Your task to perform on an android device: create a new album in the google photos Image 0: 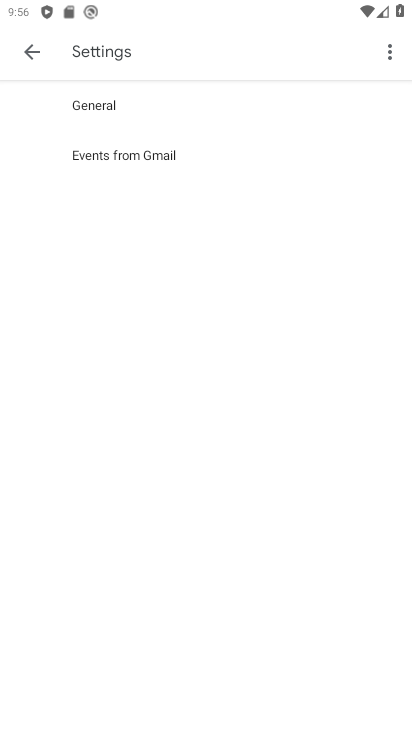
Step 0: press home button
Your task to perform on an android device: create a new album in the google photos Image 1: 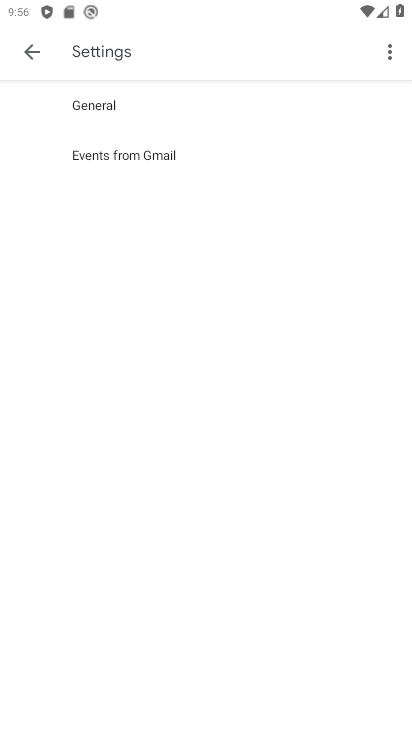
Step 1: press home button
Your task to perform on an android device: create a new album in the google photos Image 2: 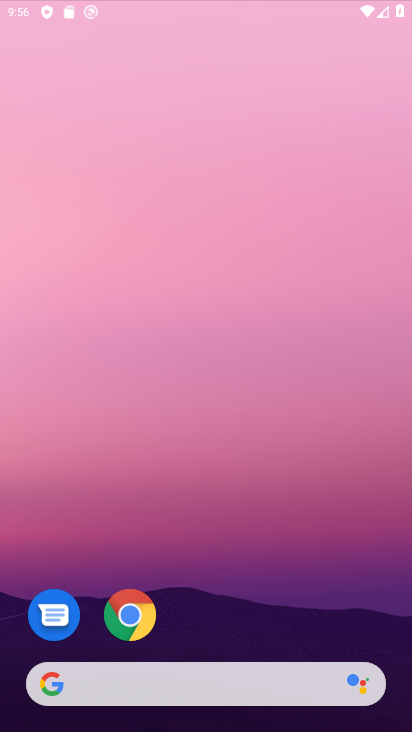
Step 2: click (339, 520)
Your task to perform on an android device: create a new album in the google photos Image 3: 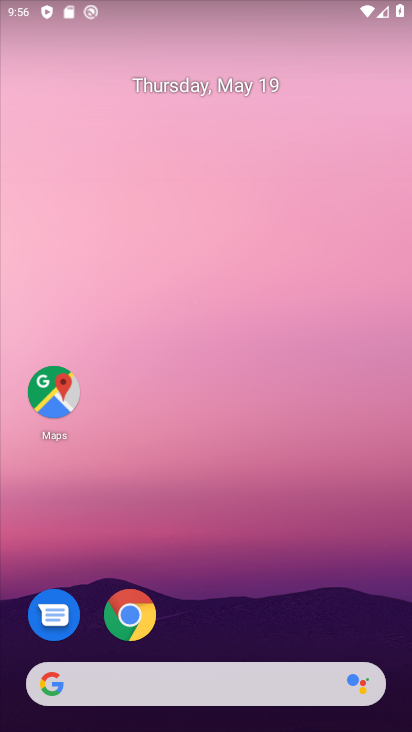
Step 3: drag from (326, 546) to (324, 62)
Your task to perform on an android device: create a new album in the google photos Image 4: 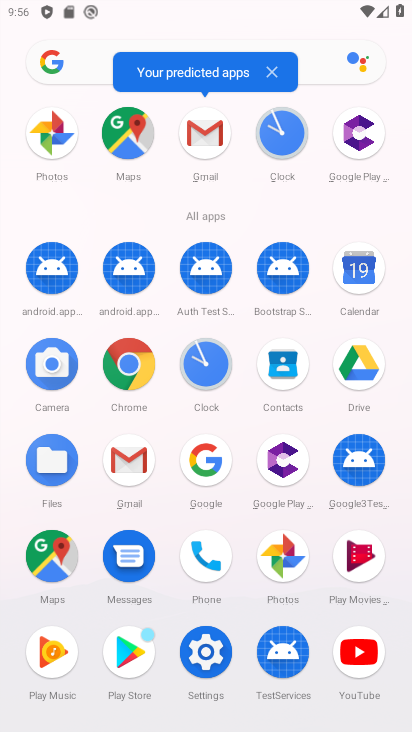
Step 4: click (286, 564)
Your task to perform on an android device: create a new album in the google photos Image 5: 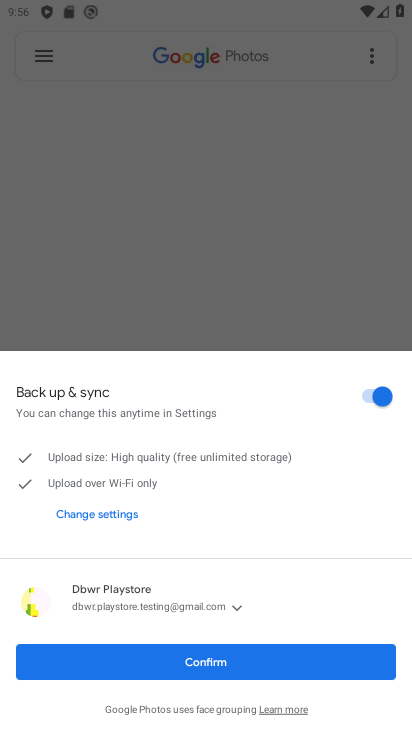
Step 5: click (288, 663)
Your task to perform on an android device: create a new album in the google photos Image 6: 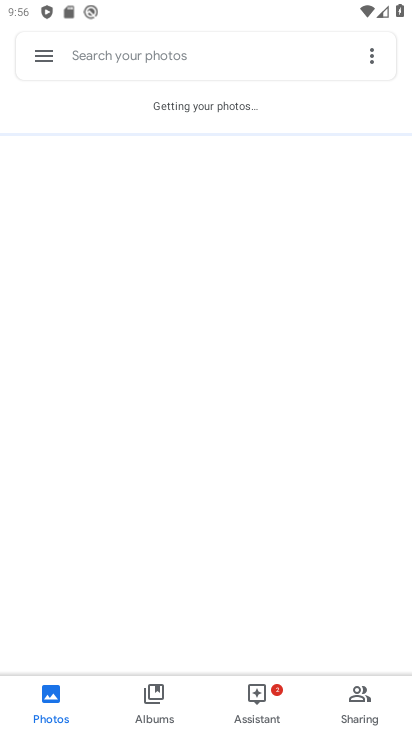
Step 6: click (370, 49)
Your task to perform on an android device: create a new album in the google photos Image 7: 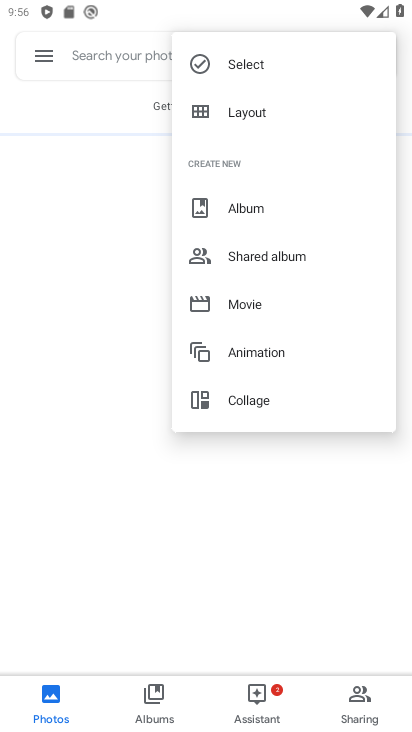
Step 7: click (257, 204)
Your task to perform on an android device: create a new album in the google photos Image 8: 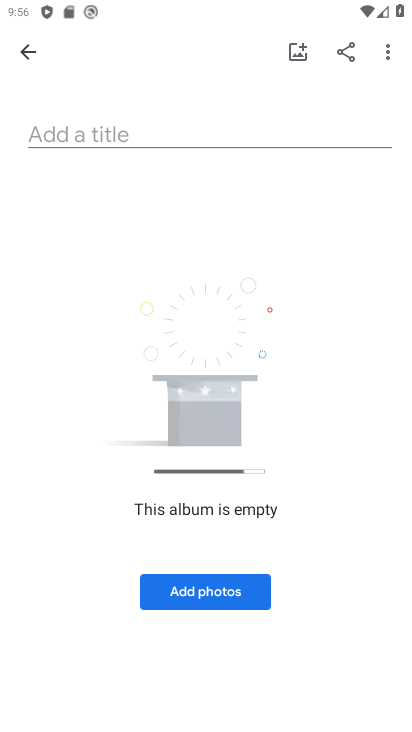
Step 8: click (353, 131)
Your task to perform on an android device: create a new album in the google photos Image 9: 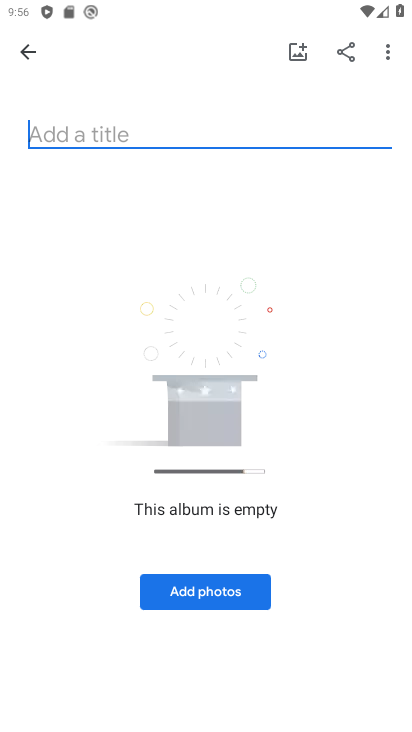
Step 9: click (353, 131)
Your task to perform on an android device: create a new album in the google photos Image 10: 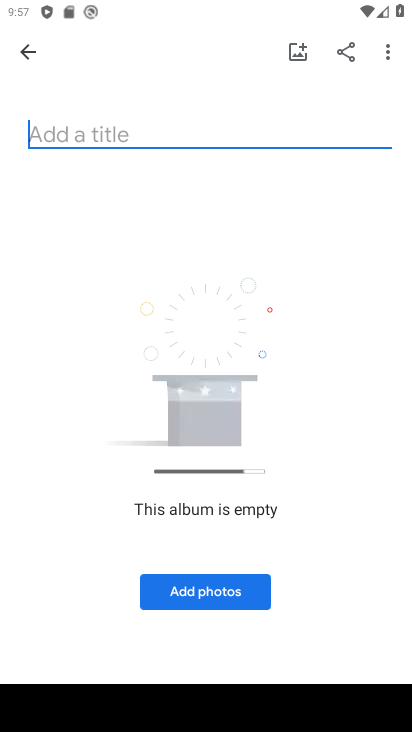
Step 10: type "jdfed"
Your task to perform on an android device: create a new album in the google photos Image 11: 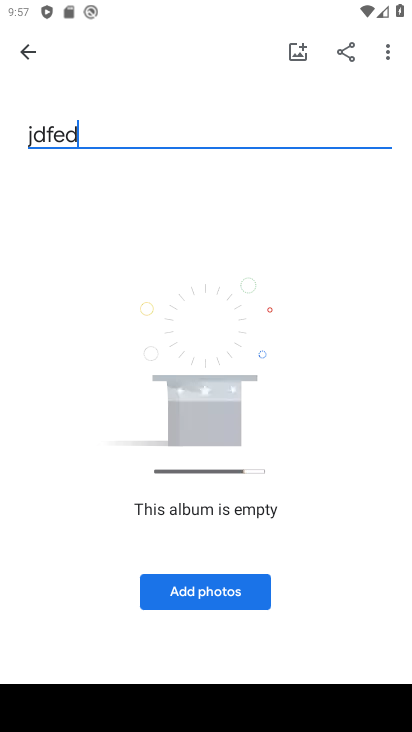
Step 11: click (175, 586)
Your task to perform on an android device: create a new album in the google photos Image 12: 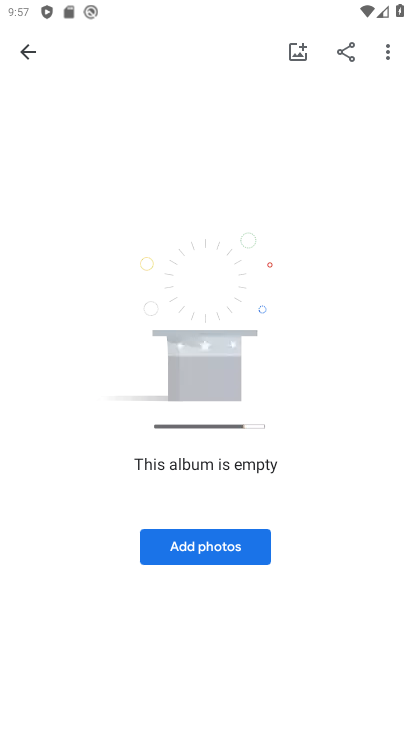
Step 12: click (245, 546)
Your task to perform on an android device: create a new album in the google photos Image 13: 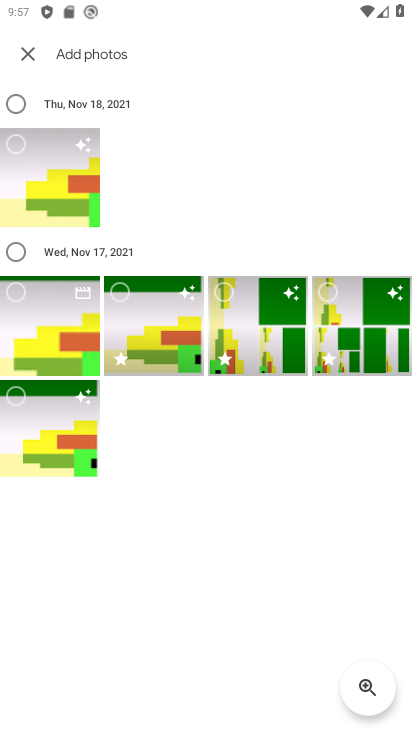
Step 13: click (164, 307)
Your task to perform on an android device: create a new album in the google photos Image 14: 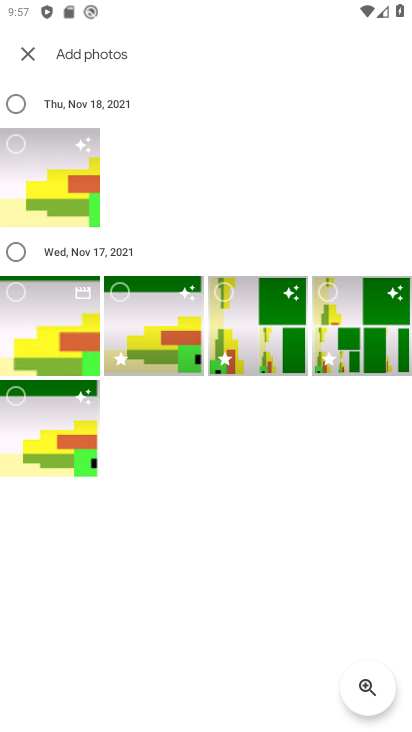
Step 14: click (164, 307)
Your task to perform on an android device: create a new album in the google photos Image 15: 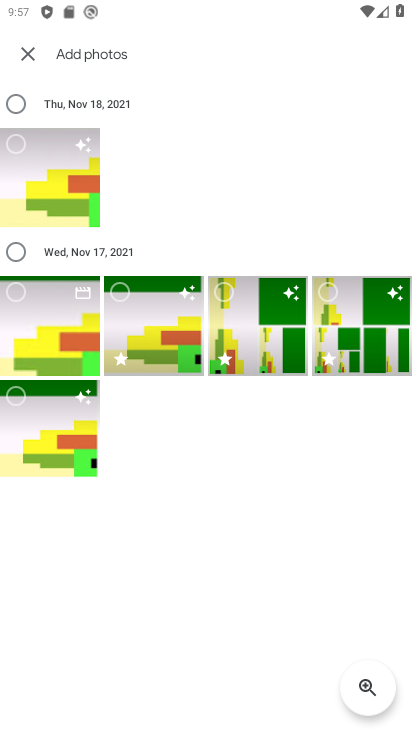
Step 15: click (165, 302)
Your task to perform on an android device: create a new album in the google photos Image 16: 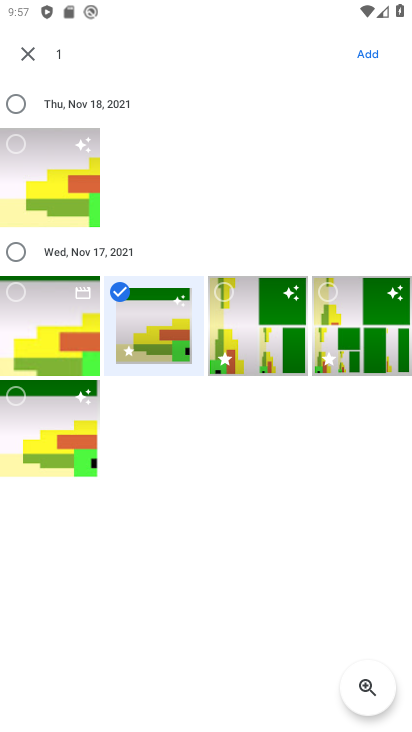
Step 16: click (372, 49)
Your task to perform on an android device: create a new album in the google photos Image 17: 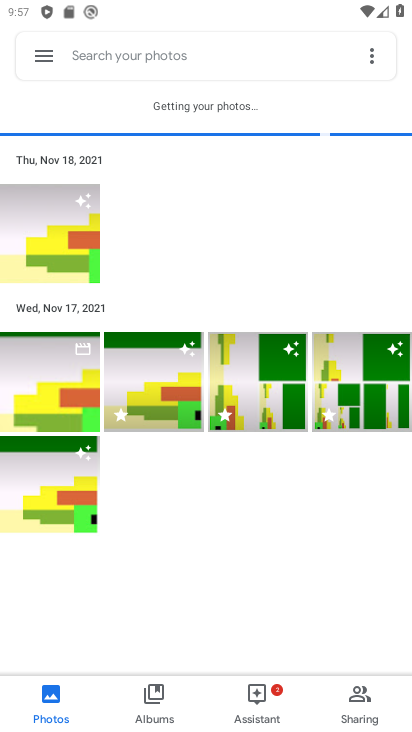
Step 17: task complete